Your task to perform on an android device: change the clock style Image 0: 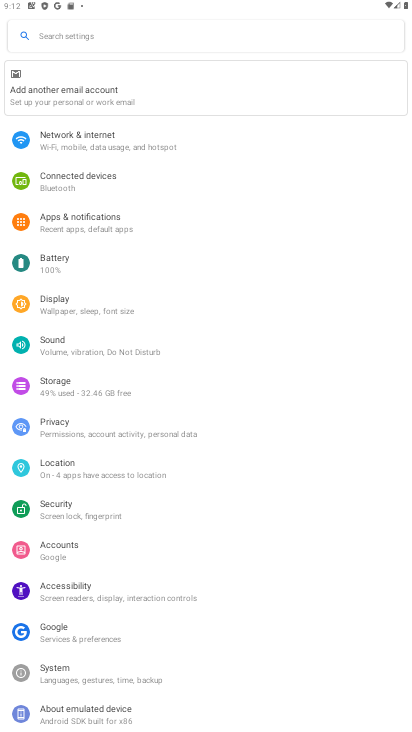
Step 0: press home button
Your task to perform on an android device: change the clock style Image 1: 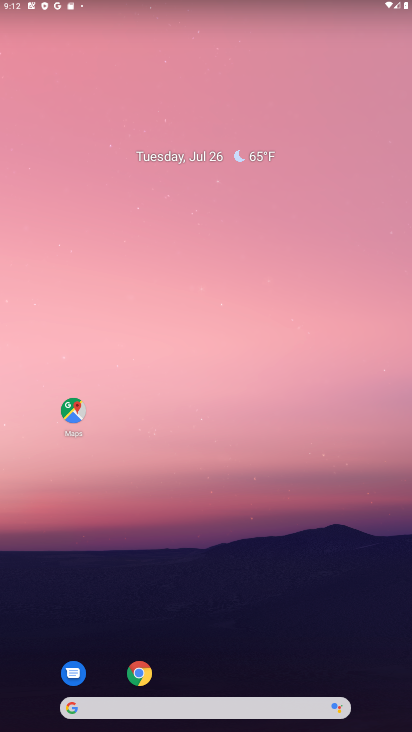
Step 1: drag from (352, 664) to (317, 129)
Your task to perform on an android device: change the clock style Image 2: 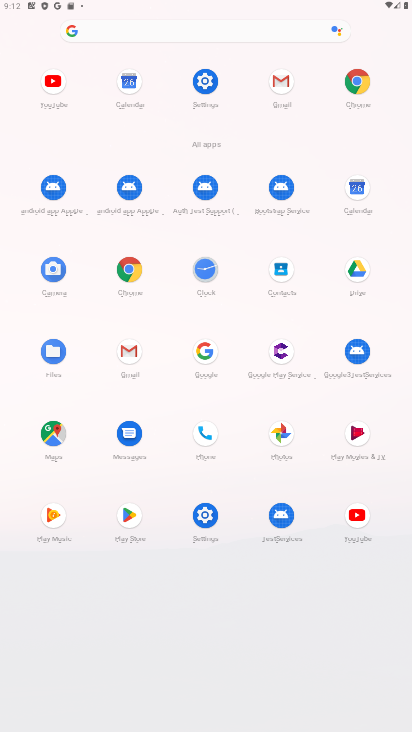
Step 2: click (205, 268)
Your task to perform on an android device: change the clock style Image 3: 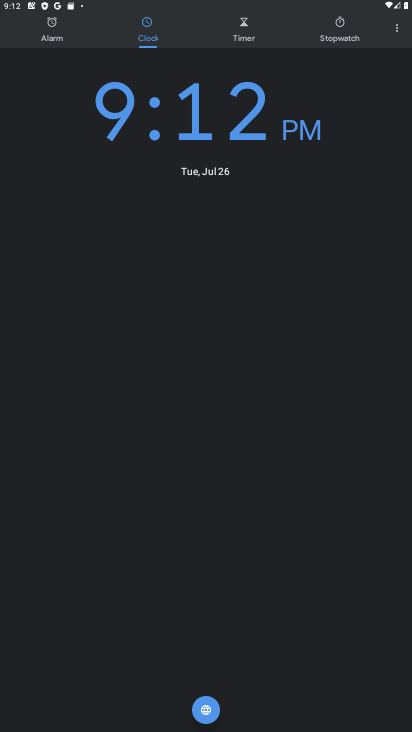
Step 3: click (397, 36)
Your task to perform on an android device: change the clock style Image 4: 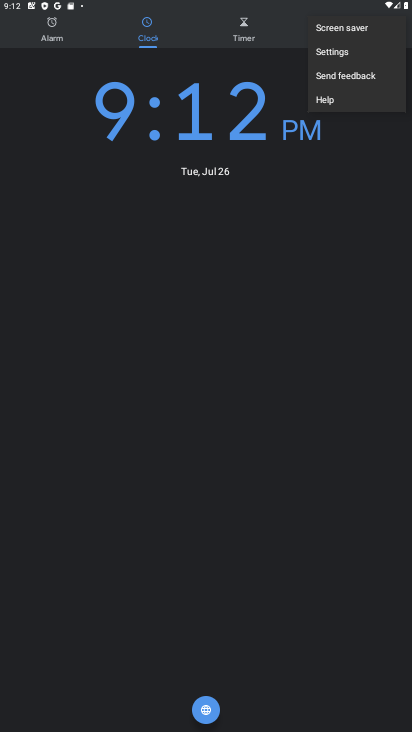
Step 4: click (326, 51)
Your task to perform on an android device: change the clock style Image 5: 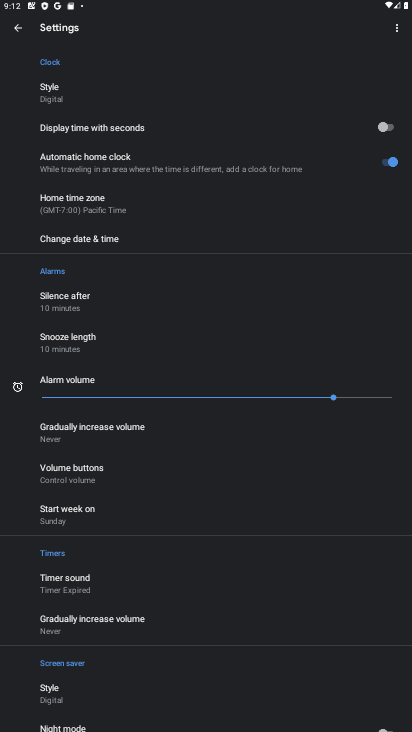
Step 5: click (62, 95)
Your task to perform on an android device: change the clock style Image 6: 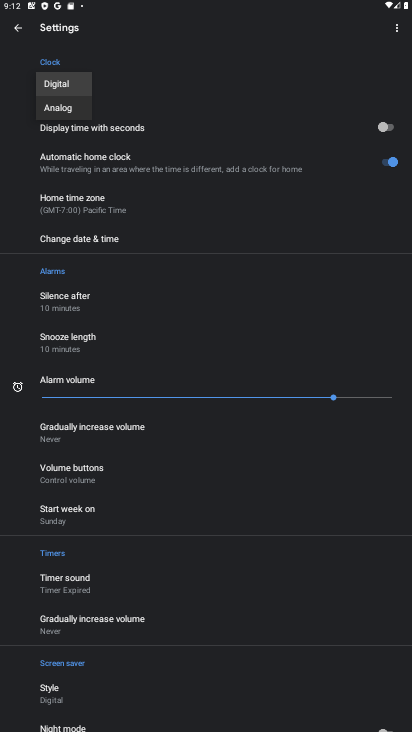
Step 6: click (61, 109)
Your task to perform on an android device: change the clock style Image 7: 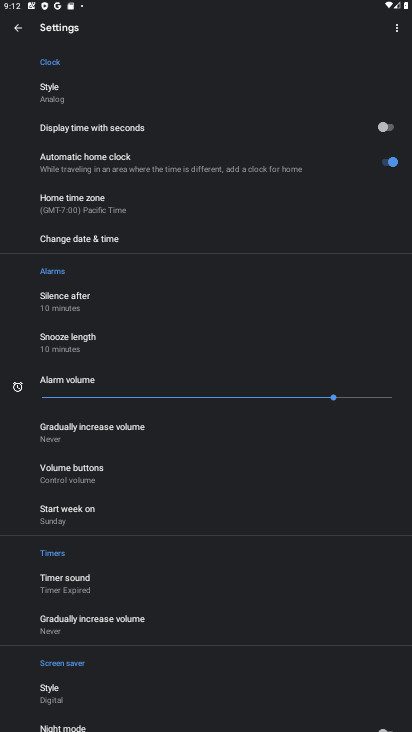
Step 7: task complete